Your task to perform on an android device: Go to location settings Image 0: 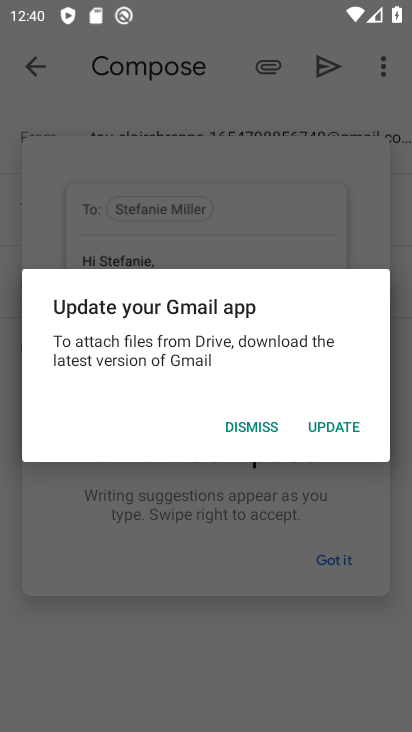
Step 0: press home button
Your task to perform on an android device: Go to location settings Image 1: 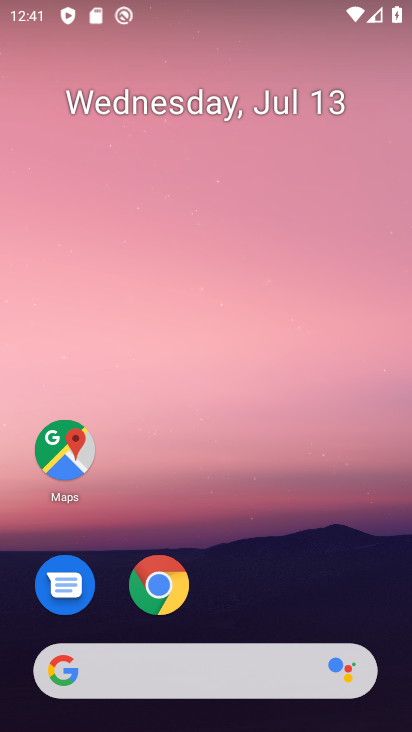
Step 1: drag from (153, 662) to (313, 0)
Your task to perform on an android device: Go to location settings Image 2: 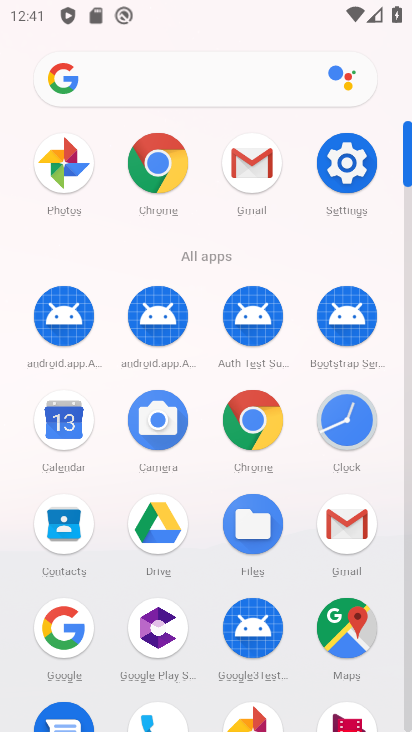
Step 2: click (349, 173)
Your task to perform on an android device: Go to location settings Image 3: 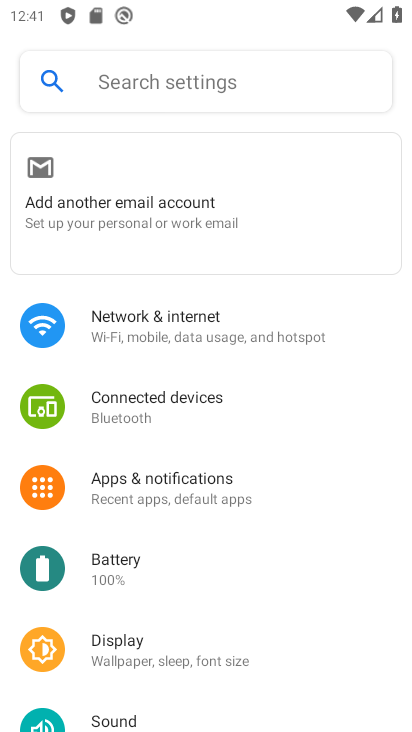
Step 3: drag from (173, 639) to (335, 126)
Your task to perform on an android device: Go to location settings Image 4: 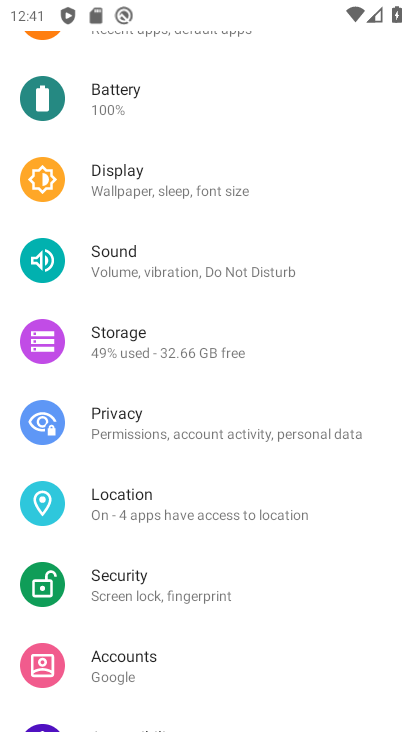
Step 4: click (166, 506)
Your task to perform on an android device: Go to location settings Image 5: 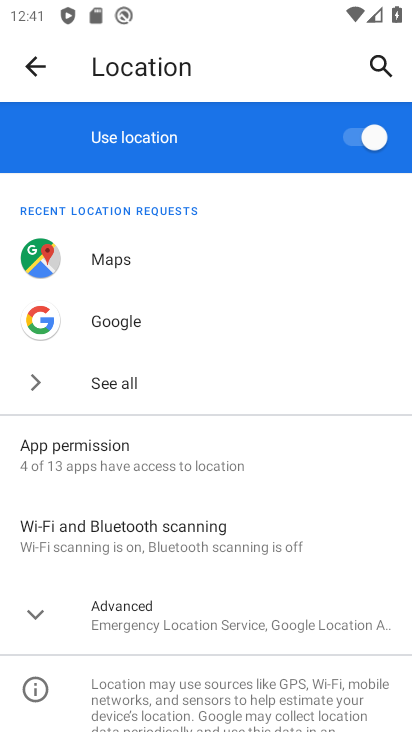
Step 5: task complete